Your task to perform on an android device: Open maps Image 0: 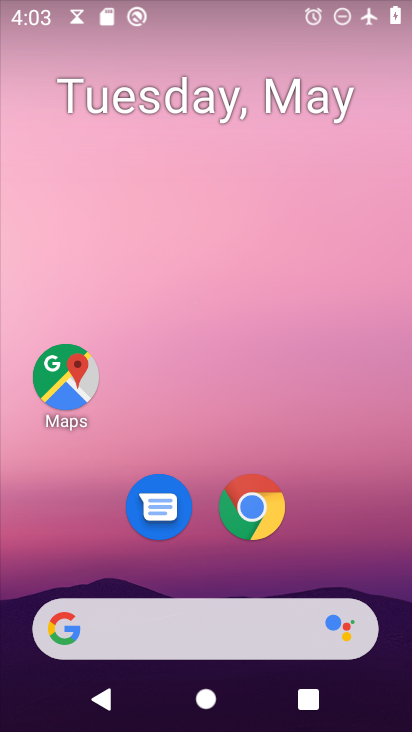
Step 0: click (51, 393)
Your task to perform on an android device: Open maps Image 1: 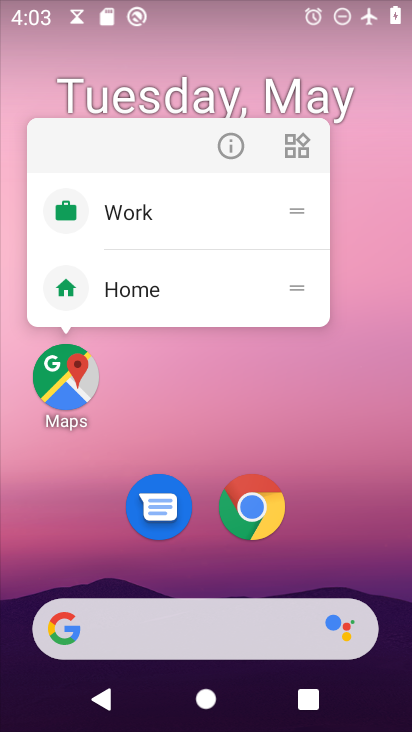
Step 1: click (52, 387)
Your task to perform on an android device: Open maps Image 2: 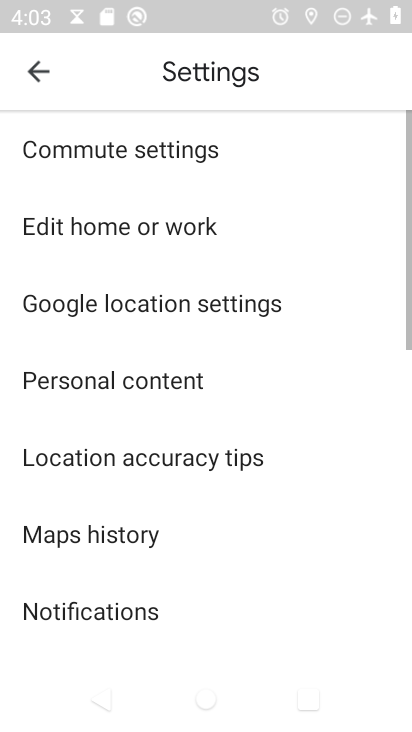
Step 2: click (40, 71)
Your task to perform on an android device: Open maps Image 3: 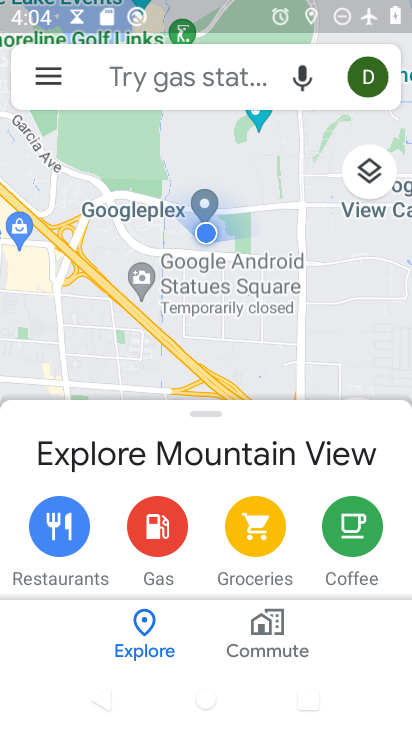
Step 3: task complete